Your task to perform on an android device: Show me recent news Image 0: 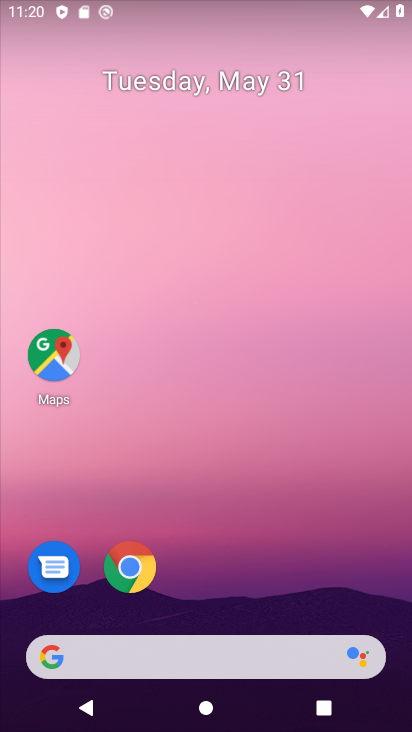
Step 0: drag from (25, 254) to (393, 174)
Your task to perform on an android device: Show me recent news Image 1: 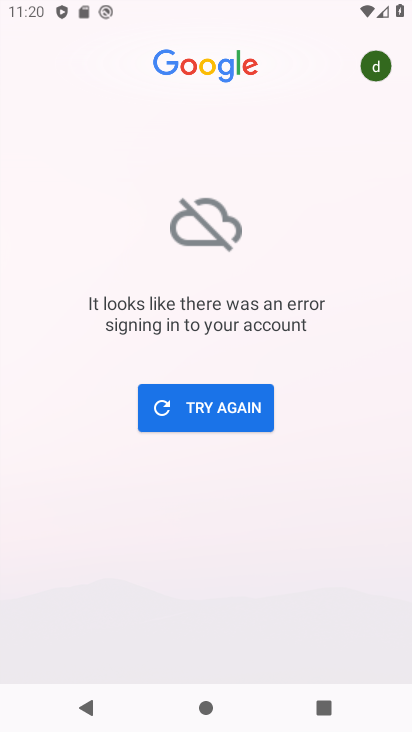
Step 1: click (214, 400)
Your task to perform on an android device: Show me recent news Image 2: 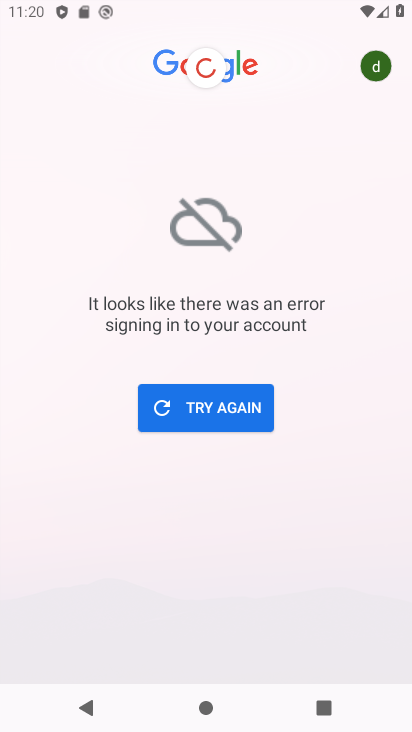
Step 2: task complete